Your task to perform on an android device: Open ESPN.com Image 0: 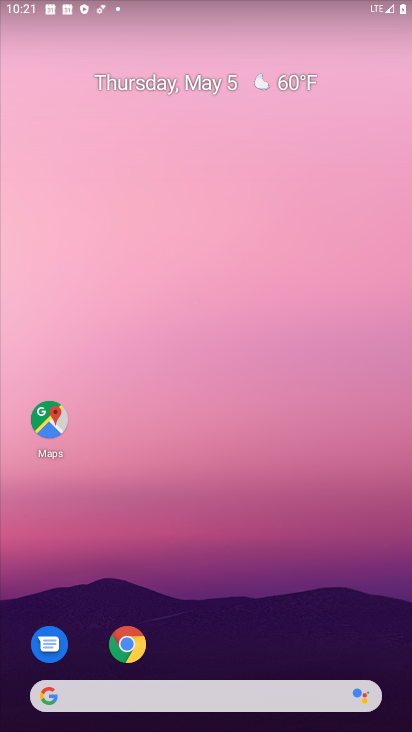
Step 0: drag from (198, 593) to (219, 153)
Your task to perform on an android device: Open ESPN.com Image 1: 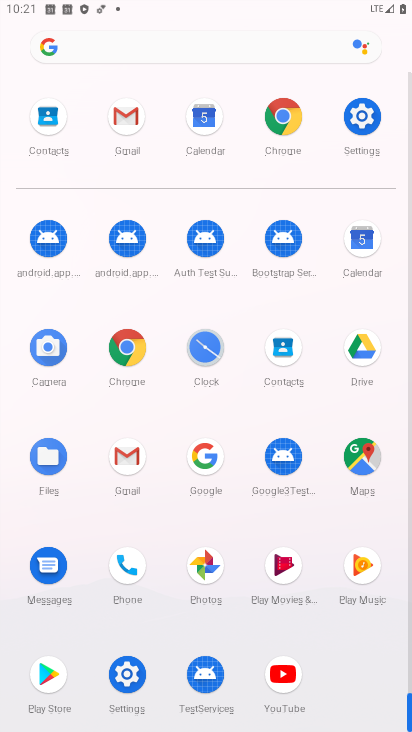
Step 1: click (290, 109)
Your task to perform on an android device: Open ESPN.com Image 2: 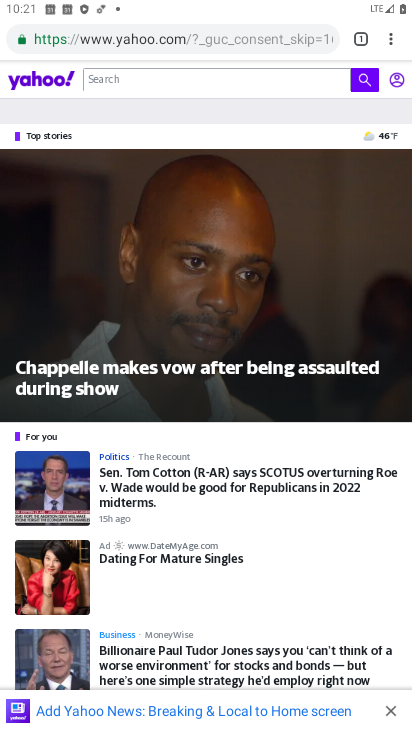
Step 2: click (160, 38)
Your task to perform on an android device: Open ESPN.com Image 3: 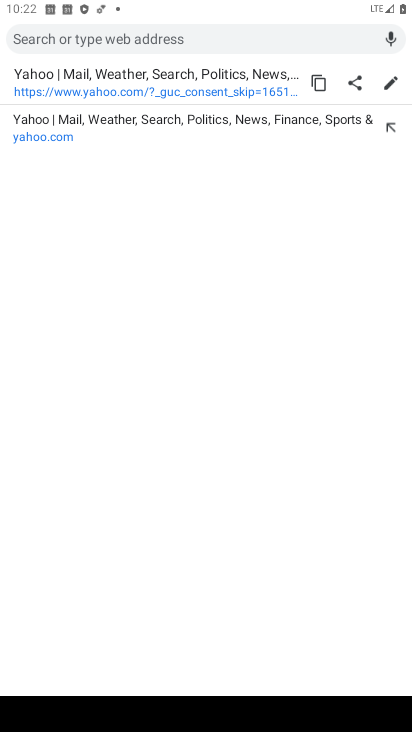
Step 3: type "espn"
Your task to perform on an android device: Open ESPN.com Image 4: 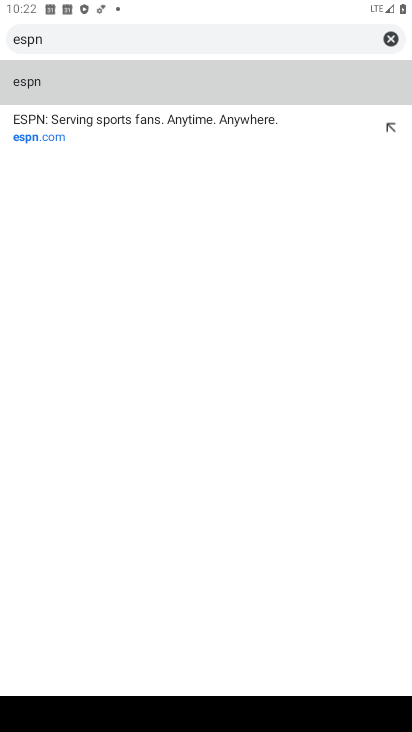
Step 4: click (11, 92)
Your task to perform on an android device: Open ESPN.com Image 5: 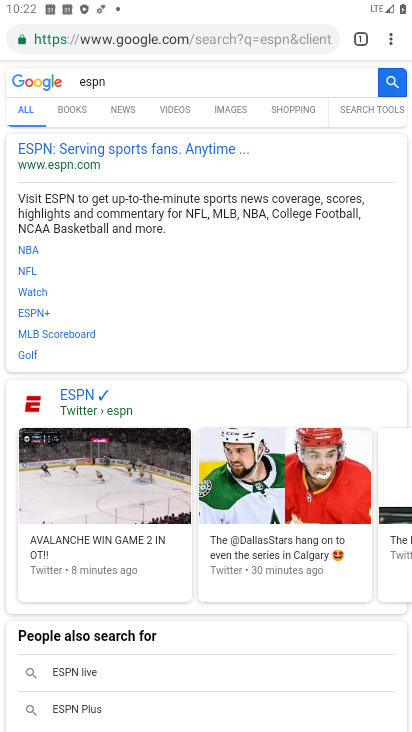
Step 5: drag from (182, 198) to (200, 554)
Your task to perform on an android device: Open ESPN.com Image 6: 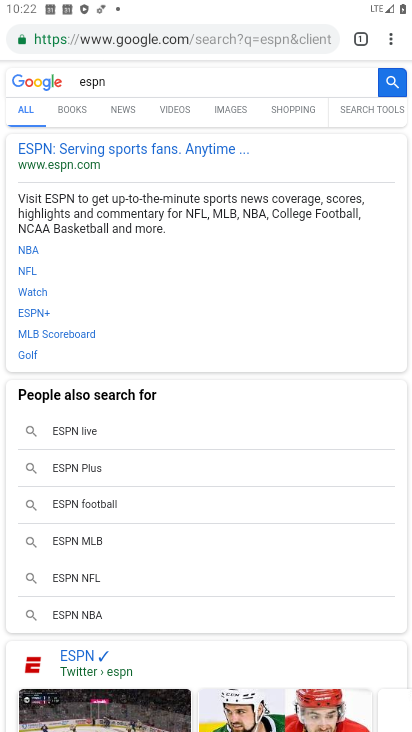
Step 6: drag from (165, 623) to (186, 301)
Your task to perform on an android device: Open ESPN.com Image 7: 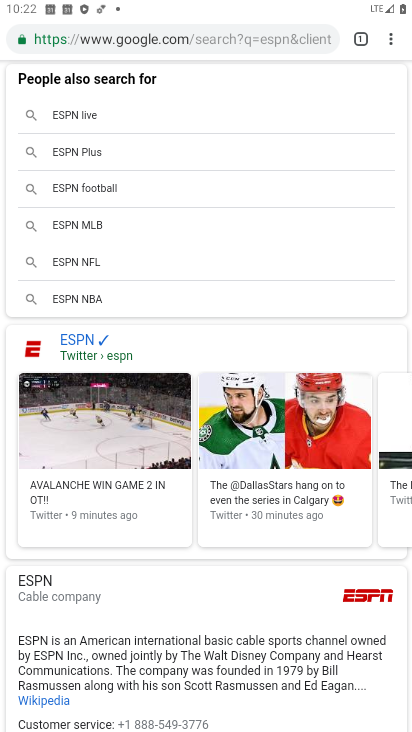
Step 7: drag from (237, 645) to (280, 322)
Your task to perform on an android device: Open ESPN.com Image 8: 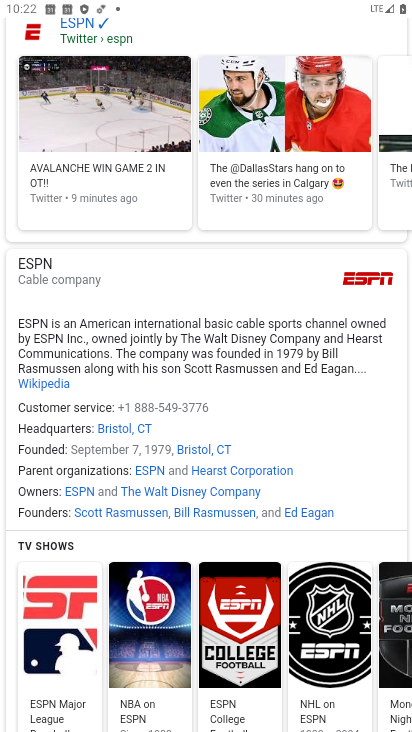
Step 8: drag from (195, 654) to (222, 323)
Your task to perform on an android device: Open ESPN.com Image 9: 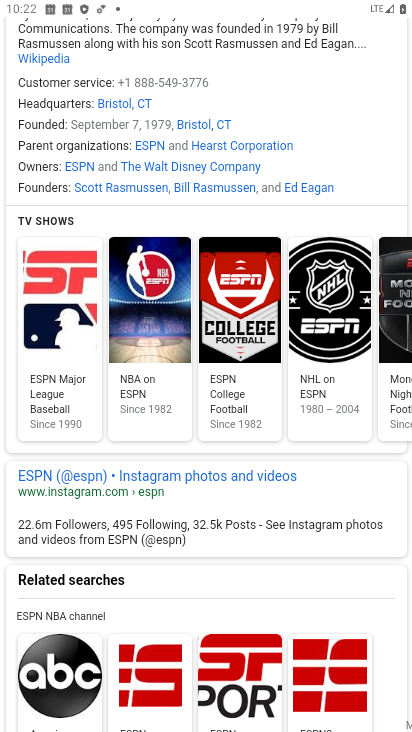
Step 9: drag from (250, 524) to (310, 223)
Your task to perform on an android device: Open ESPN.com Image 10: 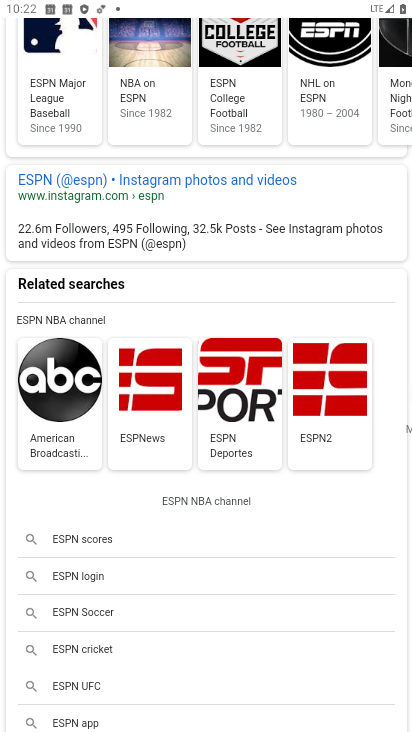
Step 10: drag from (232, 589) to (222, 186)
Your task to perform on an android device: Open ESPN.com Image 11: 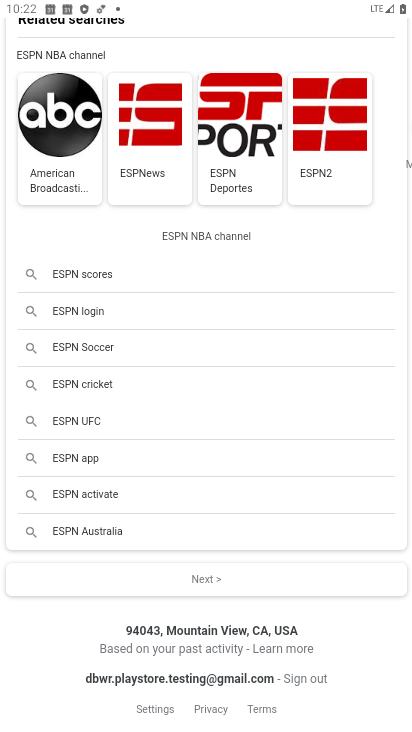
Step 11: drag from (288, 565) to (344, 66)
Your task to perform on an android device: Open ESPN.com Image 12: 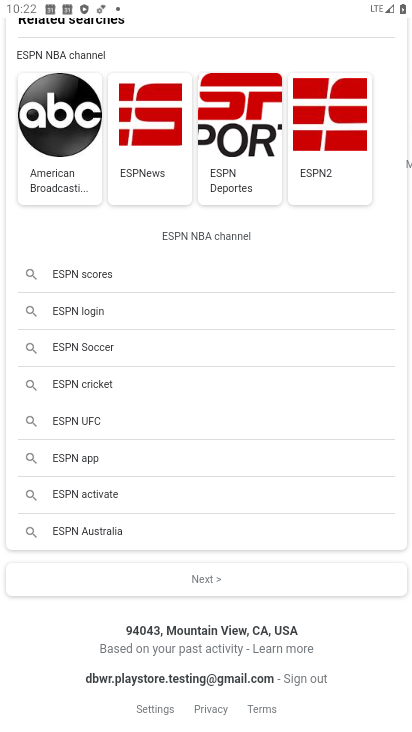
Step 12: drag from (214, 116) to (257, 711)
Your task to perform on an android device: Open ESPN.com Image 13: 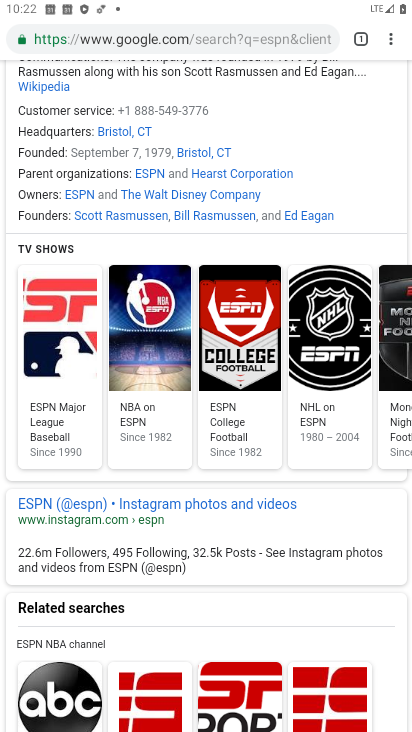
Step 13: drag from (161, 157) to (279, 727)
Your task to perform on an android device: Open ESPN.com Image 14: 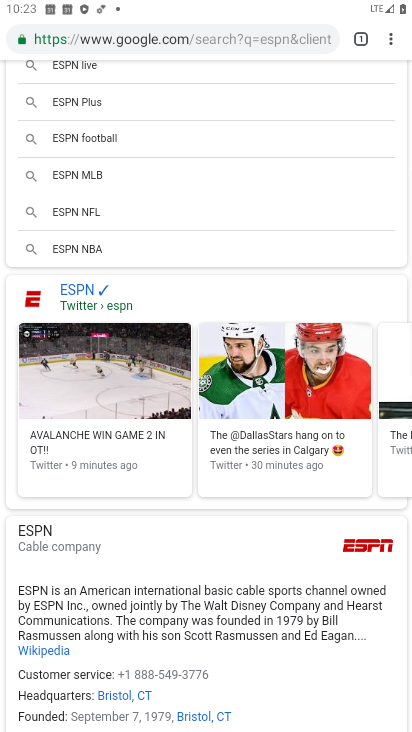
Step 14: drag from (127, 245) to (320, 665)
Your task to perform on an android device: Open ESPN.com Image 15: 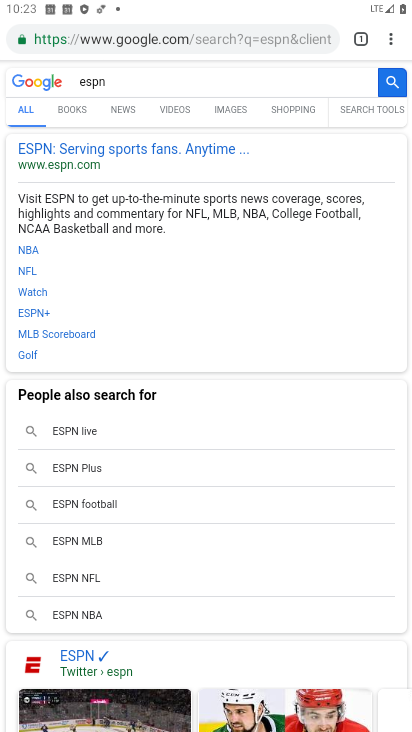
Step 15: click (65, 162)
Your task to perform on an android device: Open ESPN.com Image 16: 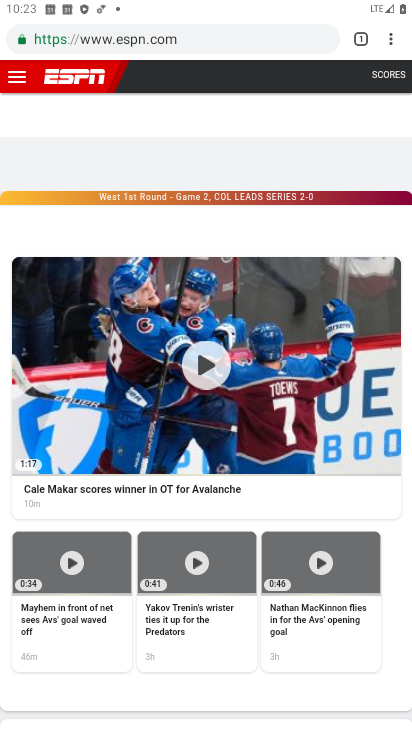
Step 16: task complete